Your task to perform on an android device: toggle javascript in the chrome app Image 0: 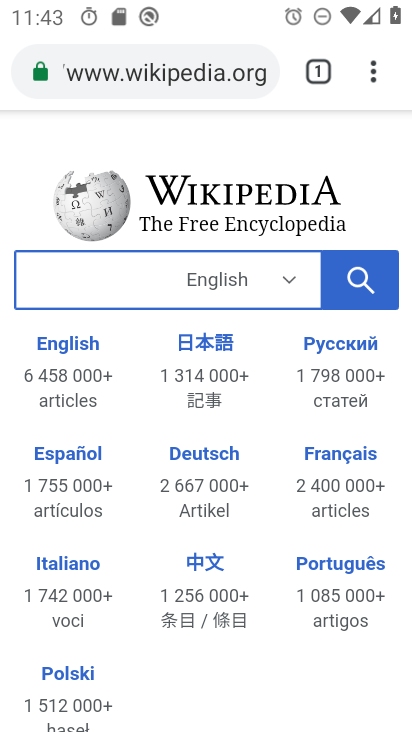
Step 0: press home button
Your task to perform on an android device: toggle javascript in the chrome app Image 1: 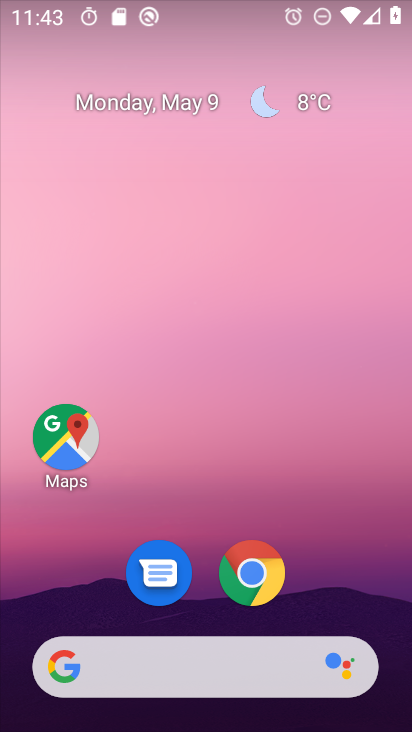
Step 1: click (259, 567)
Your task to perform on an android device: toggle javascript in the chrome app Image 2: 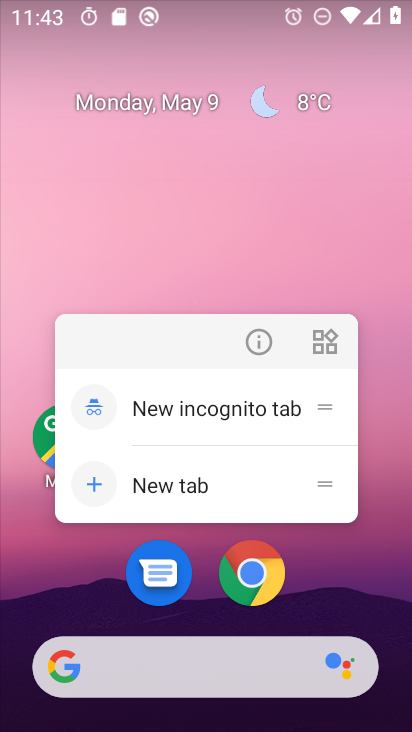
Step 2: click (255, 569)
Your task to perform on an android device: toggle javascript in the chrome app Image 3: 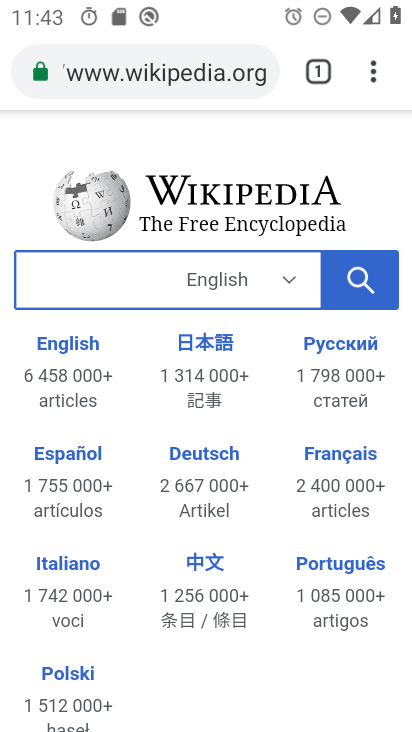
Step 3: drag from (380, 63) to (230, 580)
Your task to perform on an android device: toggle javascript in the chrome app Image 4: 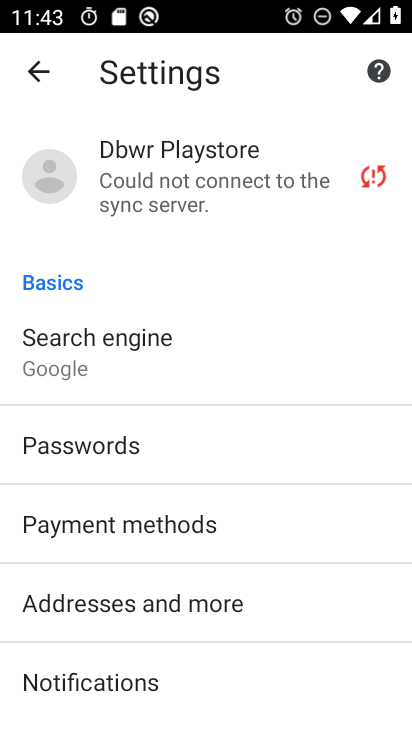
Step 4: drag from (235, 524) to (247, 177)
Your task to perform on an android device: toggle javascript in the chrome app Image 5: 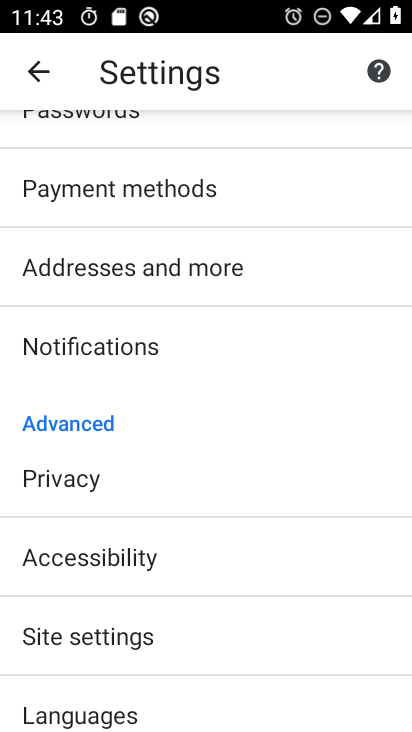
Step 5: drag from (184, 530) to (236, 152)
Your task to perform on an android device: toggle javascript in the chrome app Image 6: 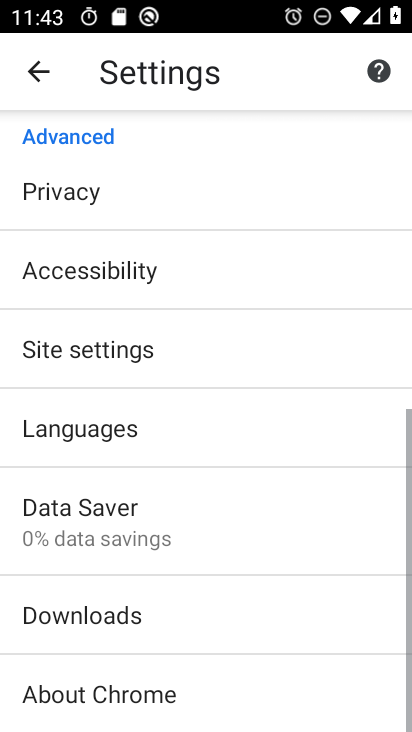
Step 6: click (115, 346)
Your task to perform on an android device: toggle javascript in the chrome app Image 7: 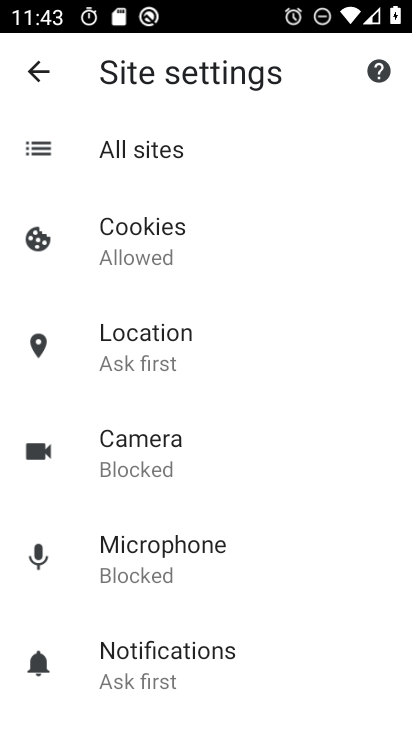
Step 7: drag from (223, 625) to (200, 195)
Your task to perform on an android device: toggle javascript in the chrome app Image 8: 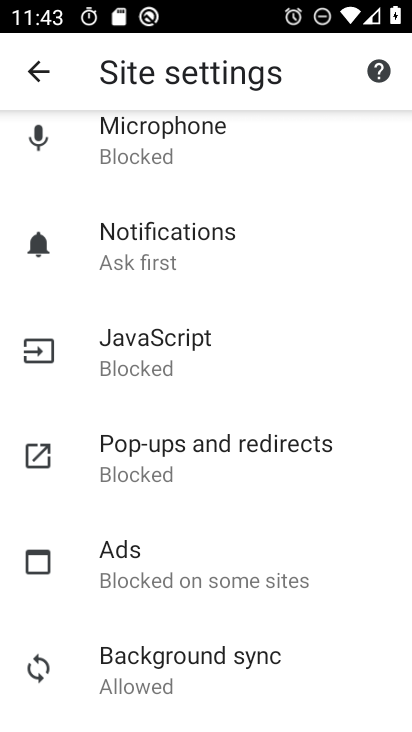
Step 8: click (157, 354)
Your task to perform on an android device: toggle javascript in the chrome app Image 9: 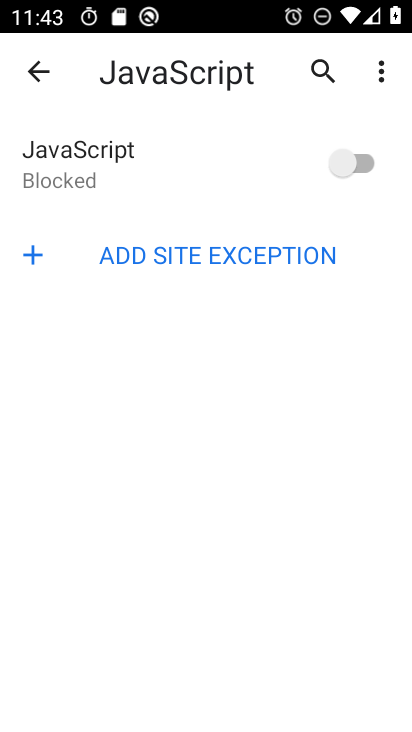
Step 9: click (369, 158)
Your task to perform on an android device: toggle javascript in the chrome app Image 10: 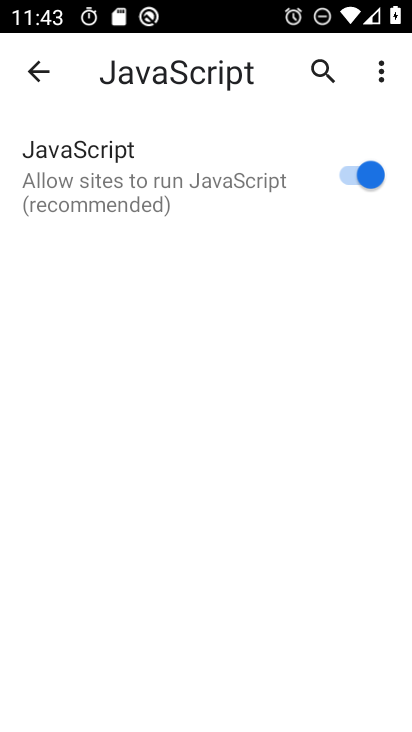
Step 10: task complete